Your task to perform on an android device: open app "Viber Messenger" (install if not already installed) and go to login screen Image 0: 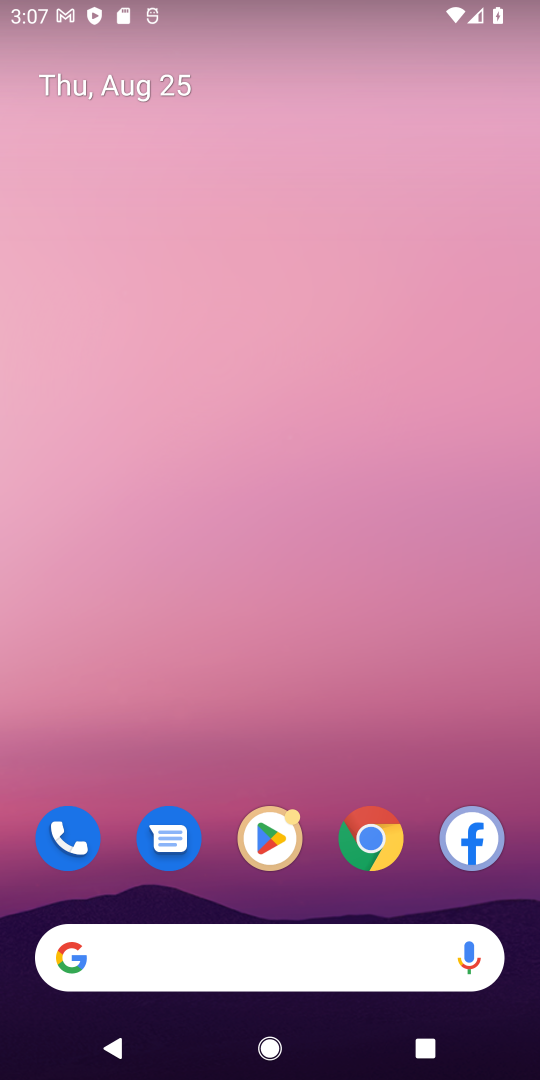
Step 0: drag from (250, 929) to (268, 252)
Your task to perform on an android device: open app "Viber Messenger" (install if not already installed) and go to login screen Image 1: 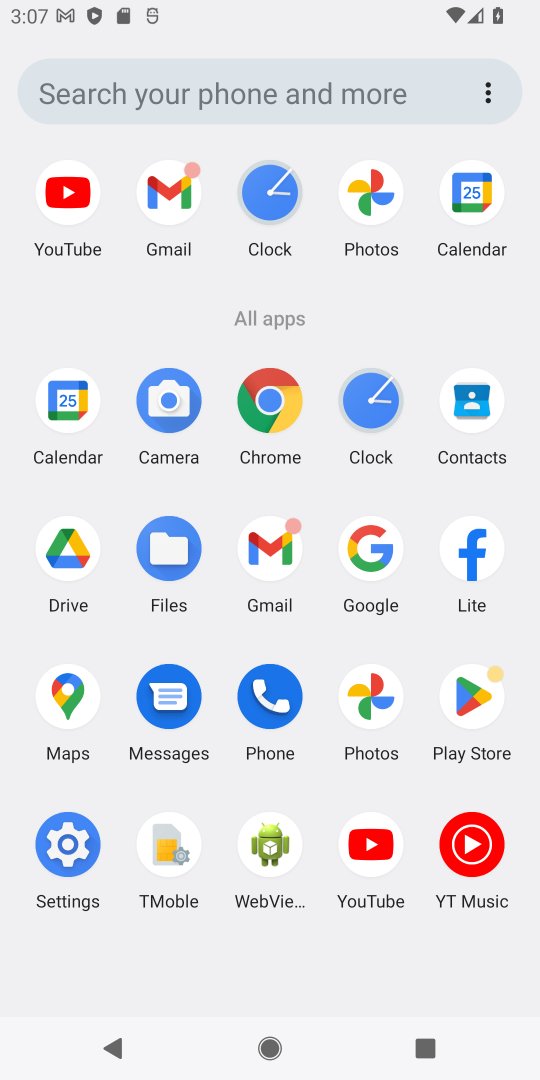
Step 1: click (469, 701)
Your task to perform on an android device: open app "Viber Messenger" (install if not already installed) and go to login screen Image 2: 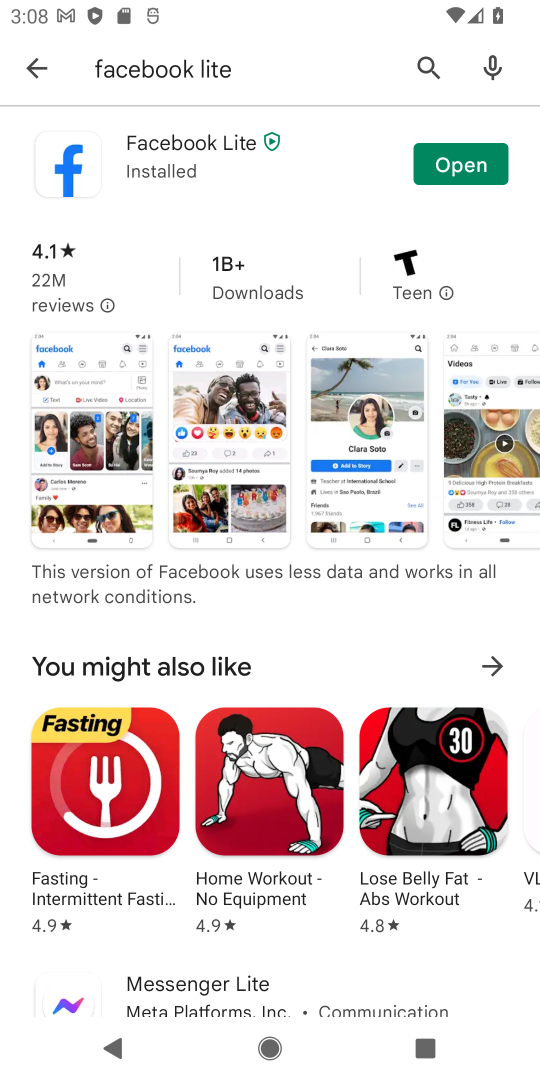
Step 2: click (424, 63)
Your task to perform on an android device: open app "Viber Messenger" (install if not already installed) and go to login screen Image 3: 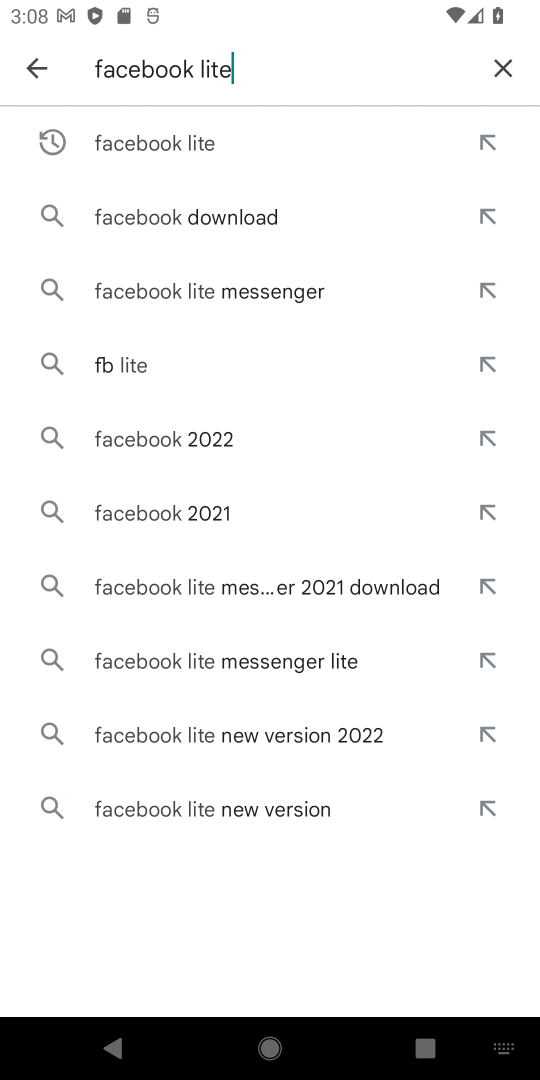
Step 3: click (499, 70)
Your task to perform on an android device: open app "Viber Messenger" (install if not already installed) and go to login screen Image 4: 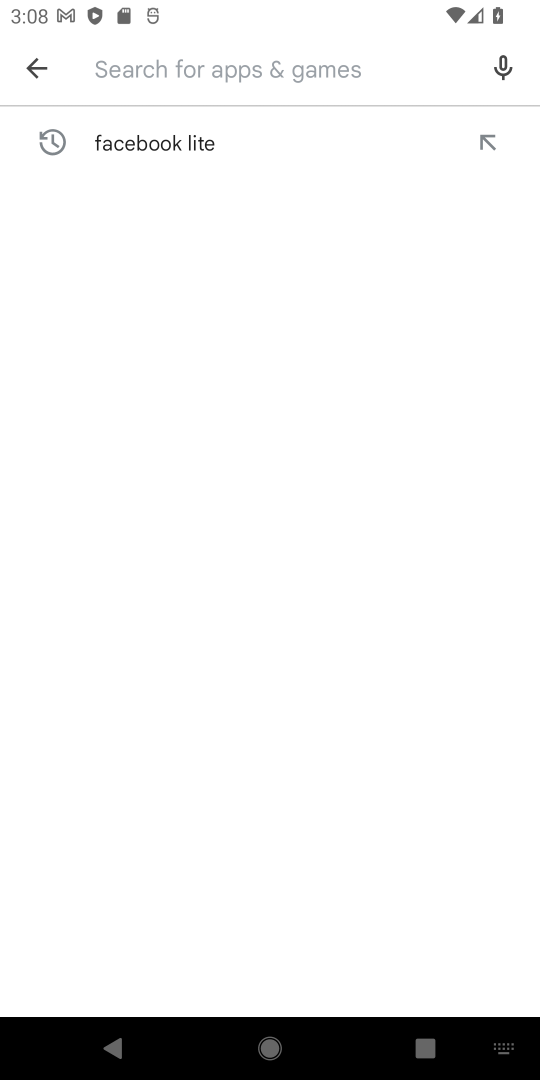
Step 4: type "Viber Messenger"
Your task to perform on an android device: open app "Viber Messenger" (install if not already installed) and go to login screen Image 5: 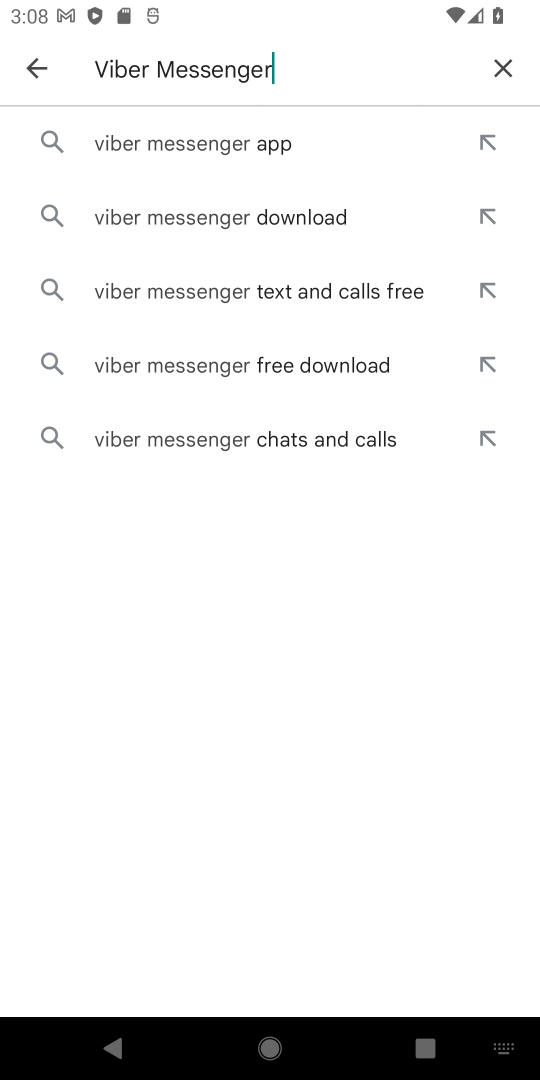
Step 5: click (150, 135)
Your task to perform on an android device: open app "Viber Messenger" (install if not already installed) and go to login screen Image 6: 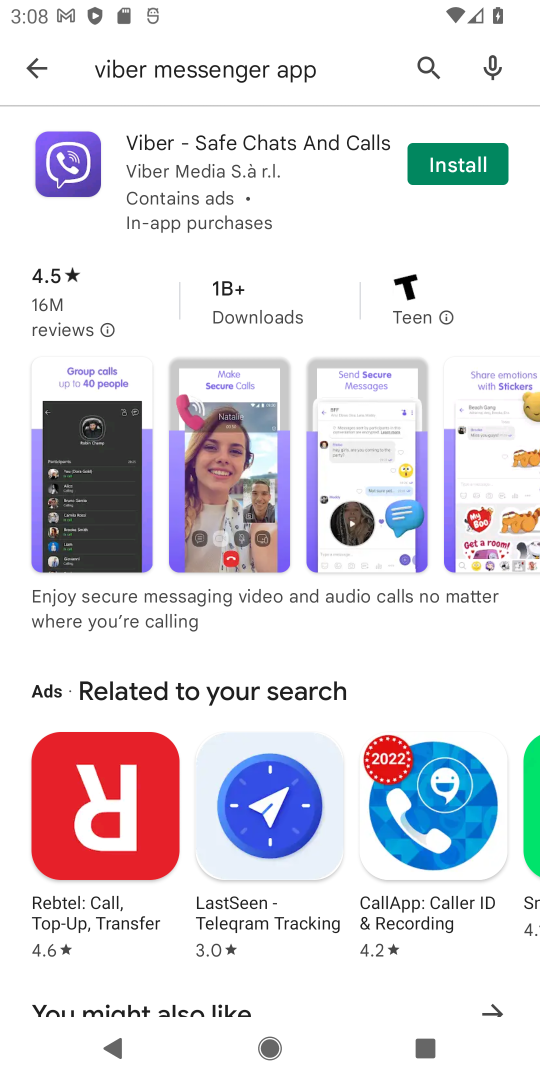
Step 6: click (434, 156)
Your task to perform on an android device: open app "Viber Messenger" (install if not already installed) and go to login screen Image 7: 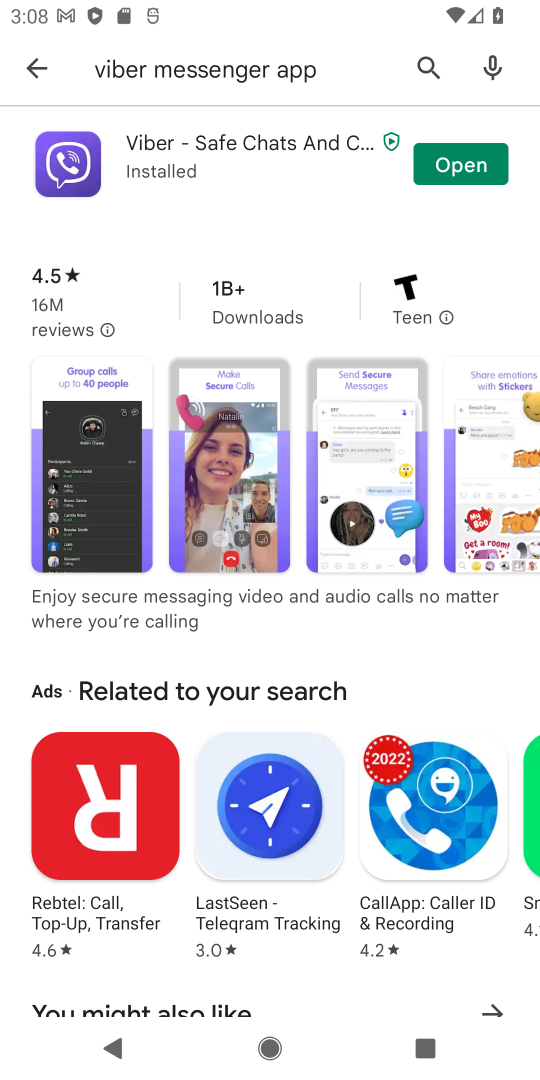
Step 7: click (460, 155)
Your task to perform on an android device: open app "Viber Messenger" (install if not already installed) and go to login screen Image 8: 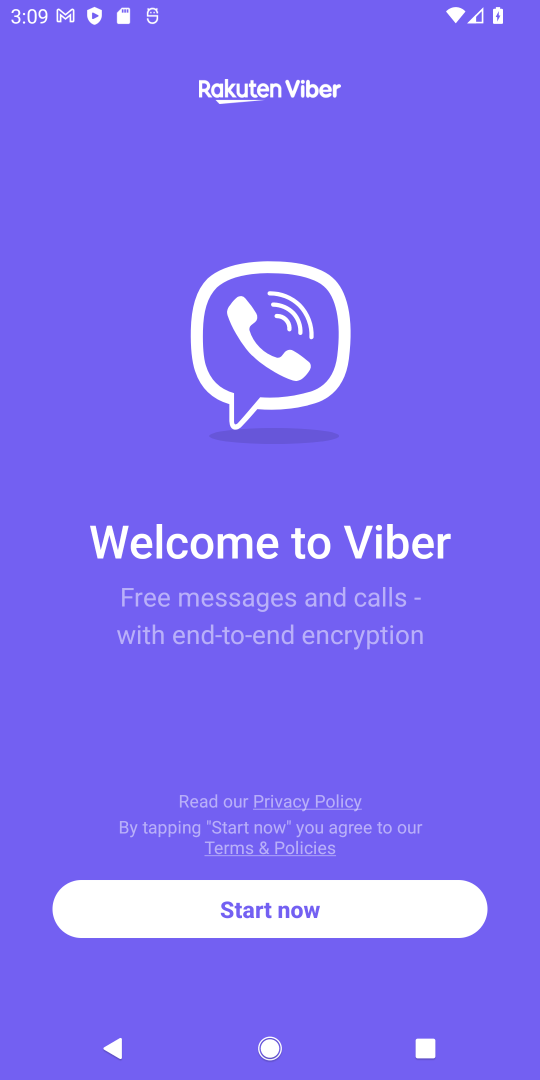
Step 8: task complete